Your task to perform on an android device: Play the last video I watched on Youtube Image 0: 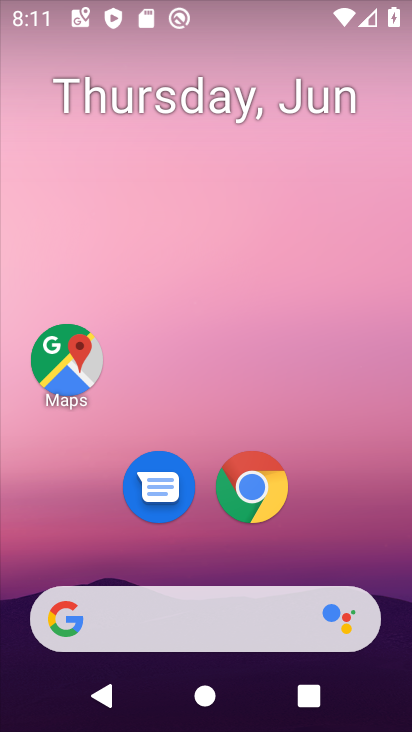
Step 0: drag from (167, 559) to (223, 150)
Your task to perform on an android device: Play the last video I watched on Youtube Image 1: 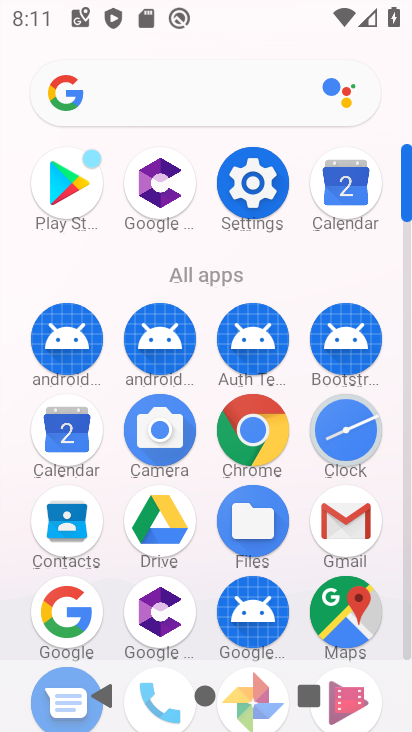
Step 1: drag from (195, 568) to (213, 285)
Your task to perform on an android device: Play the last video I watched on Youtube Image 2: 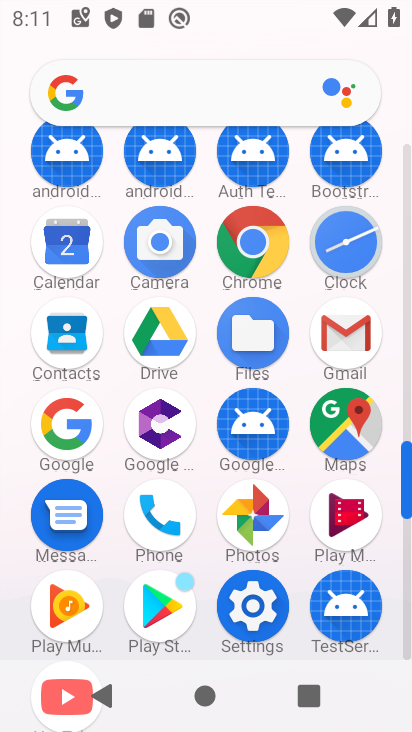
Step 2: drag from (123, 560) to (147, 77)
Your task to perform on an android device: Play the last video I watched on Youtube Image 3: 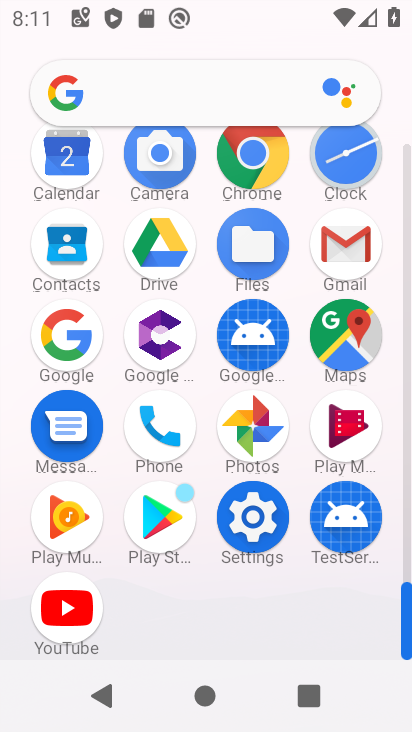
Step 3: click (69, 586)
Your task to perform on an android device: Play the last video I watched on Youtube Image 4: 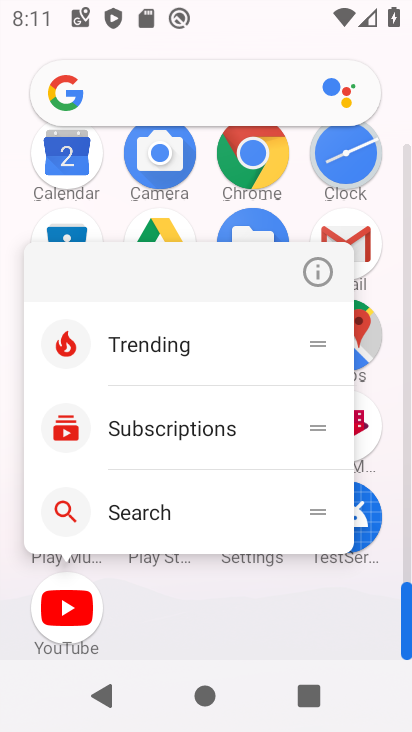
Step 4: click (329, 273)
Your task to perform on an android device: Play the last video I watched on Youtube Image 5: 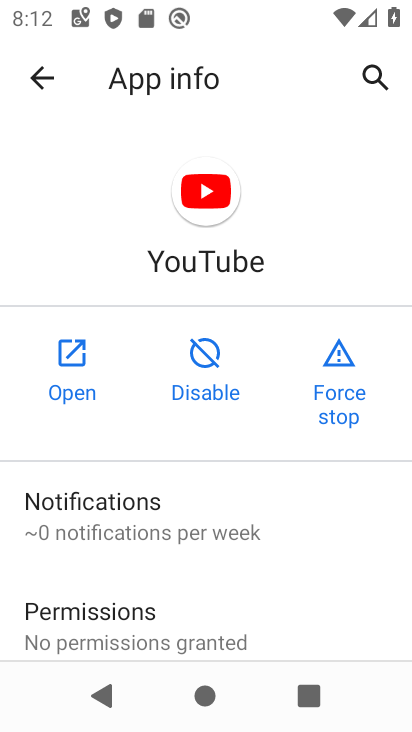
Step 5: click (77, 379)
Your task to perform on an android device: Play the last video I watched on Youtube Image 6: 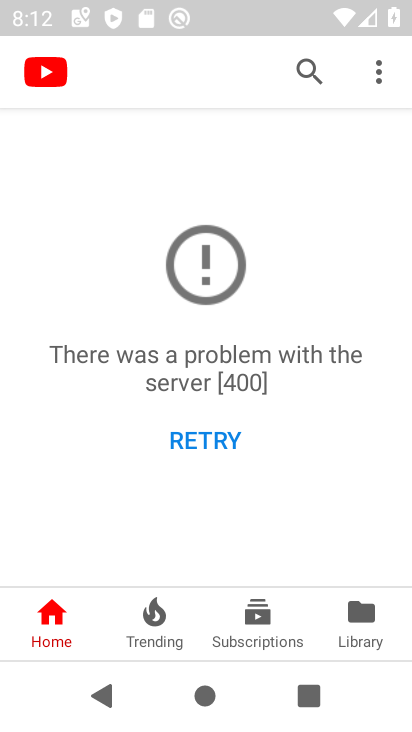
Step 6: click (354, 614)
Your task to perform on an android device: Play the last video I watched on Youtube Image 7: 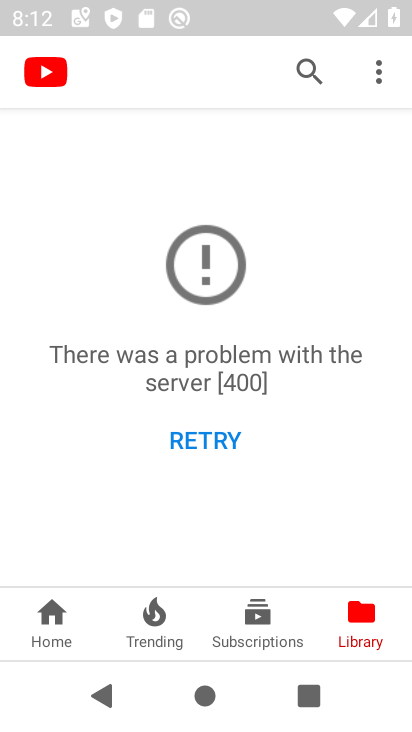
Step 7: drag from (249, 446) to (262, 95)
Your task to perform on an android device: Play the last video I watched on Youtube Image 8: 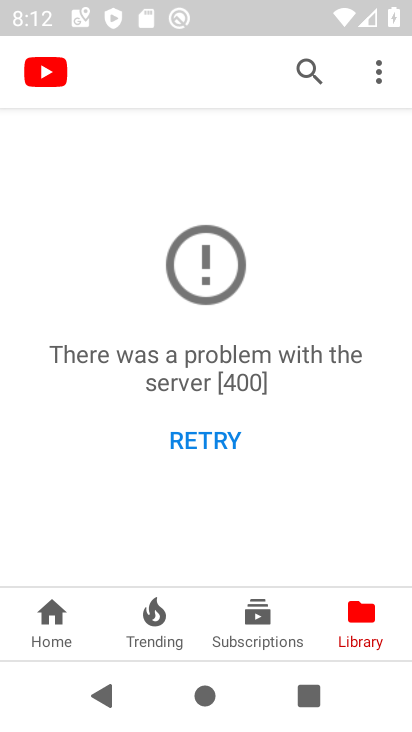
Step 8: click (204, 440)
Your task to perform on an android device: Play the last video I watched on Youtube Image 9: 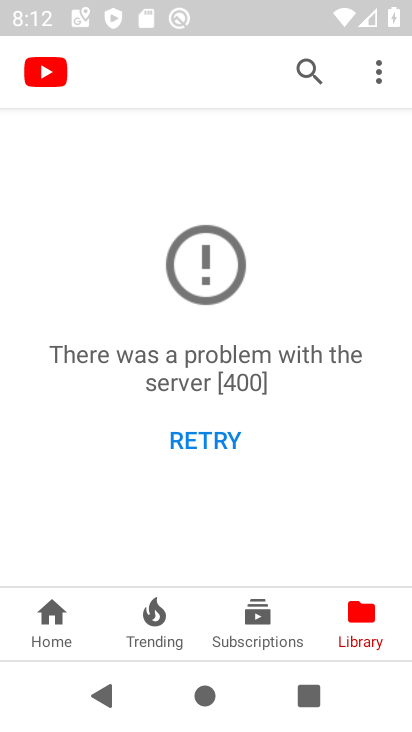
Step 9: task complete